Your task to perform on an android device: Open maps Image 0: 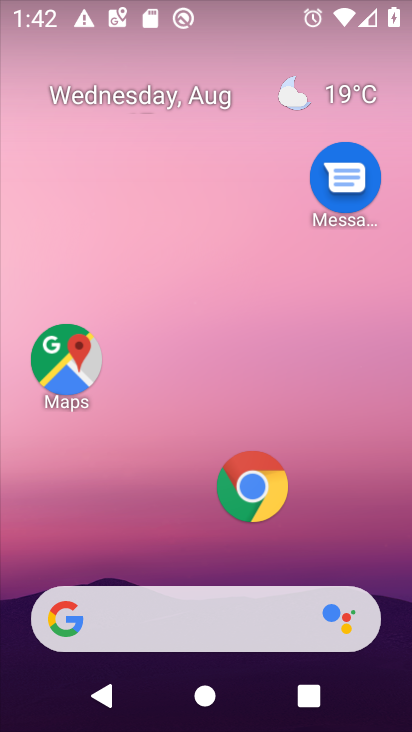
Step 0: click (53, 361)
Your task to perform on an android device: Open maps Image 1: 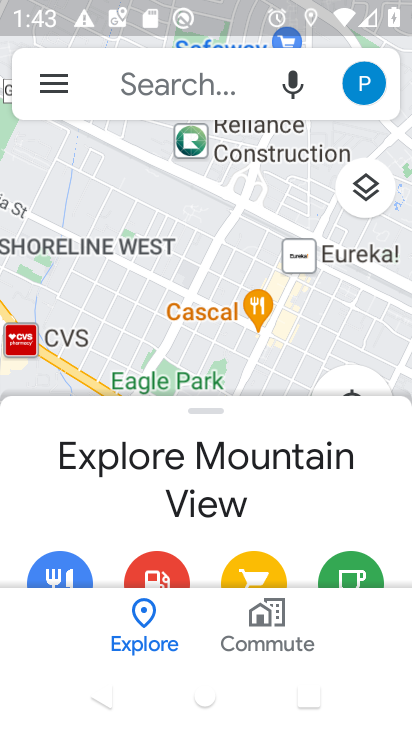
Step 1: task complete